Your task to perform on an android device: turn off location history Image 0: 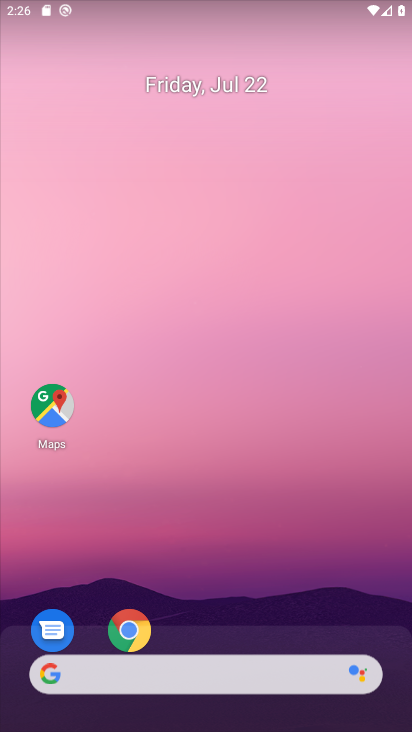
Step 0: drag from (264, 712) to (355, 138)
Your task to perform on an android device: turn off location history Image 1: 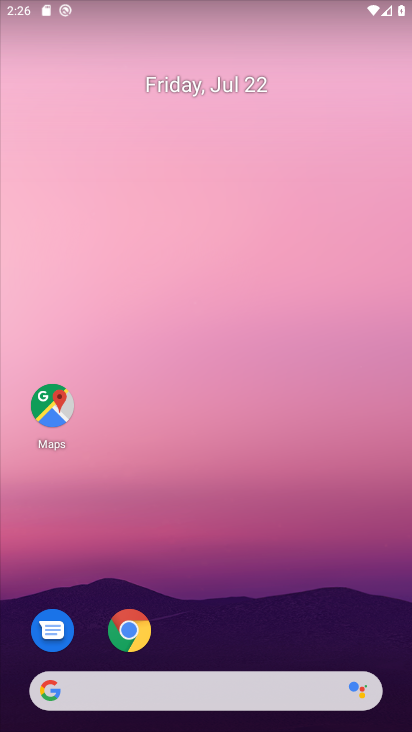
Step 1: drag from (232, 709) to (246, 30)
Your task to perform on an android device: turn off location history Image 2: 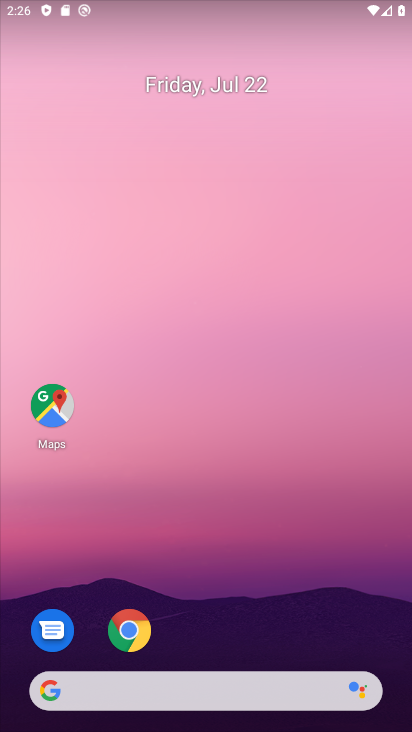
Step 2: drag from (169, 719) to (258, 108)
Your task to perform on an android device: turn off location history Image 3: 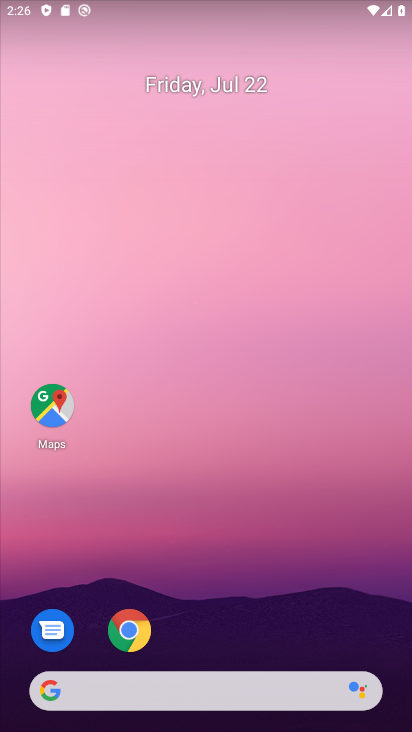
Step 3: drag from (303, 706) to (214, 204)
Your task to perform on an android device: turn off location history Image 4: 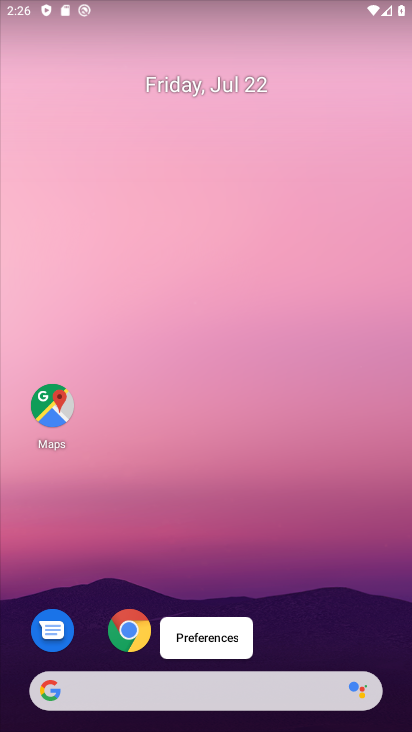
Step 4: click (291, 557)
Your task to perform on an android device: turn off location history Image 5: 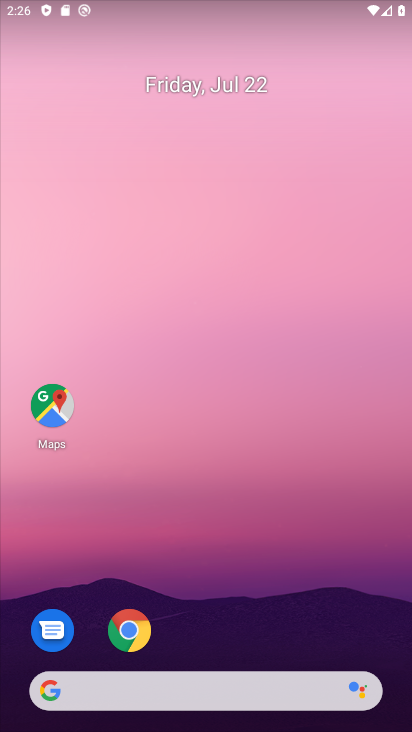
Step 5: drag from (277, 716) to (184, 171)
Your task to perform on an android device: turn off location history Image 6: 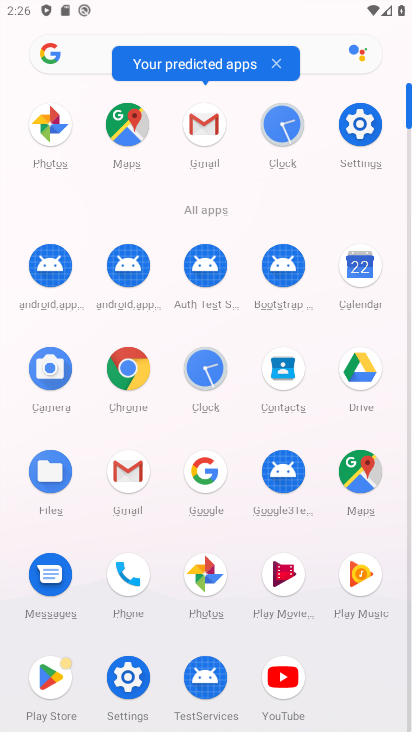
Step 6: click (361, 129)
Your task to perform on an android device: turn off location history Image 7: 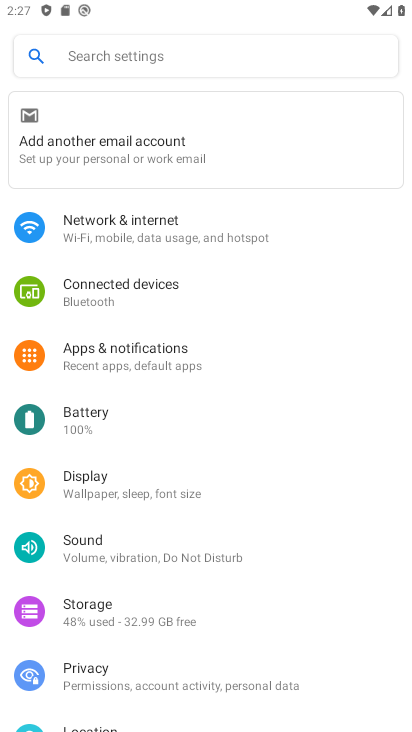
Step 7: click (87, 722)
Your task to perform on an android device: turn off location history Image 8: 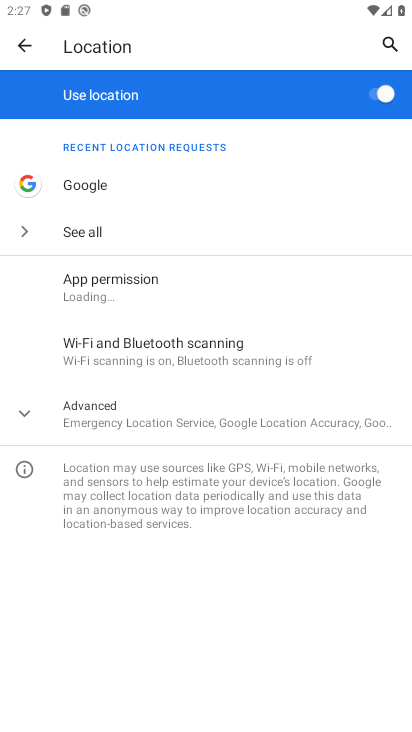
Step 8: click (27, 417)
Your task to perform on an android device: turn off location history Image 9: 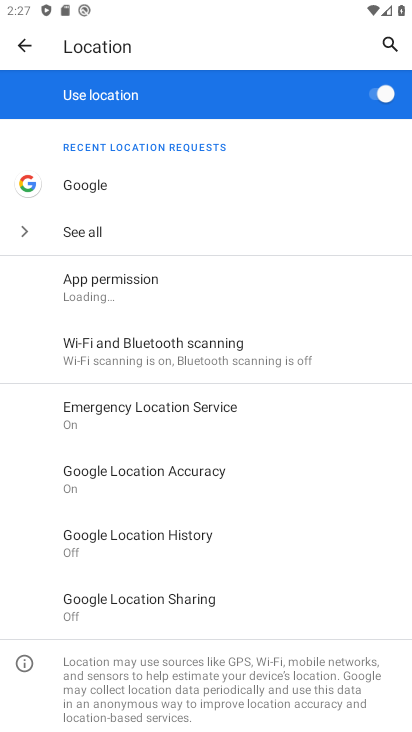
Step 9: click (121, 537)
Your task to perform on an android device: turn off location history Image 10: 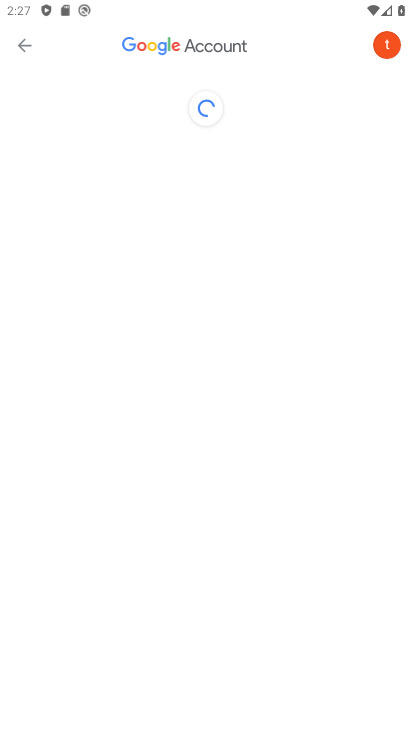
Step 10: click (58, 597)
Your task to perform on an android device: turn off location history Image 11: 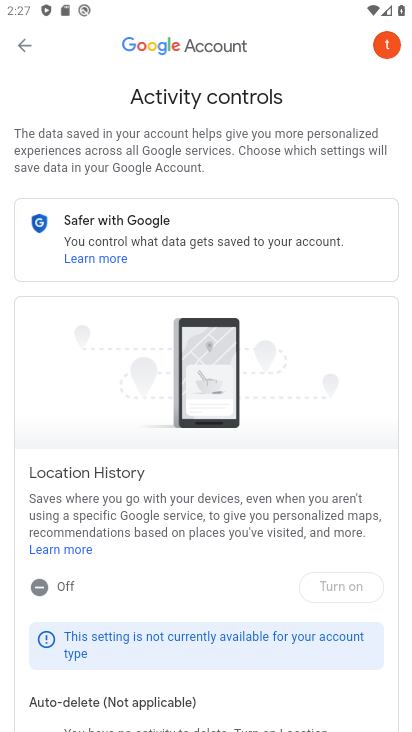
Step 11: task complete